Your task to perform on an android device: turn off priority inbox in the gmail app Image 0: 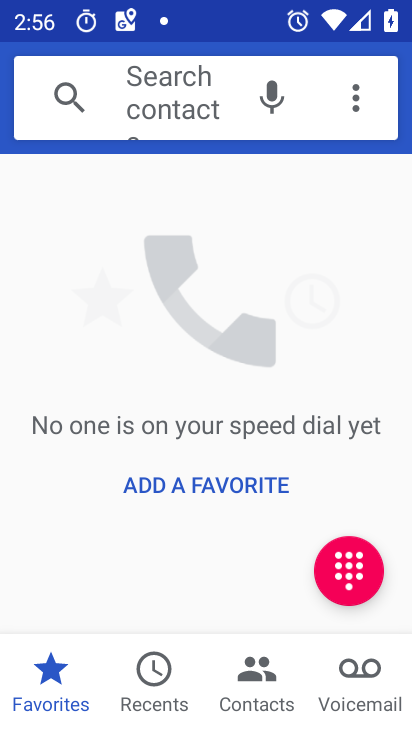
Step 0: press home button
Your task to perform on an android device: turn off priority inbox in the gmail app Image 1: 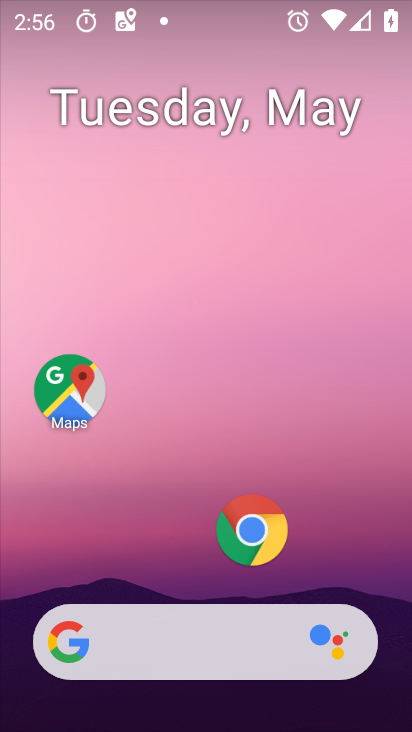
Step 1: drag from (224, 604) to (134, 3)
Your task to perform on an android device: turn off priority inbox in the gmail app Image 2: 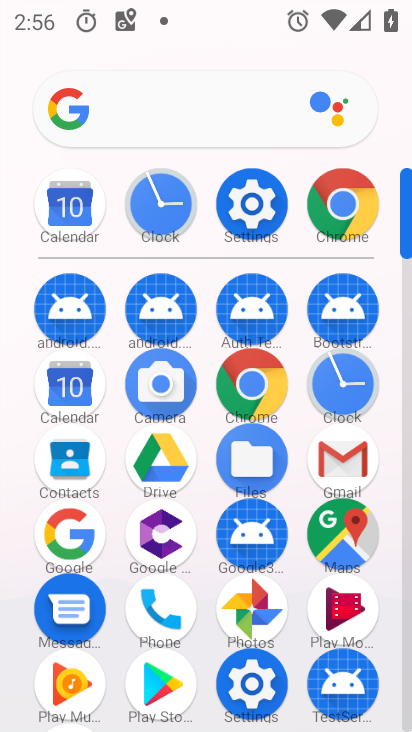
Step 2: click (356, 464)
Your task to perform on an android device: turn off priority inbox in the gmail app Image 3: 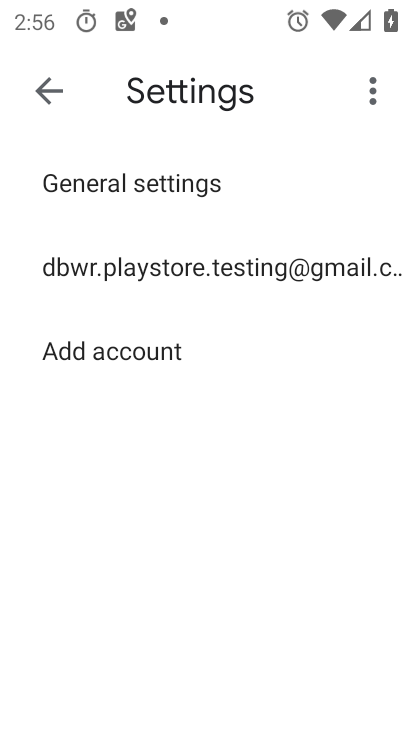
Step 3: click (152, 289)
Your task to perform on an android device: turn off priority inbox in the gmail app Image 4: 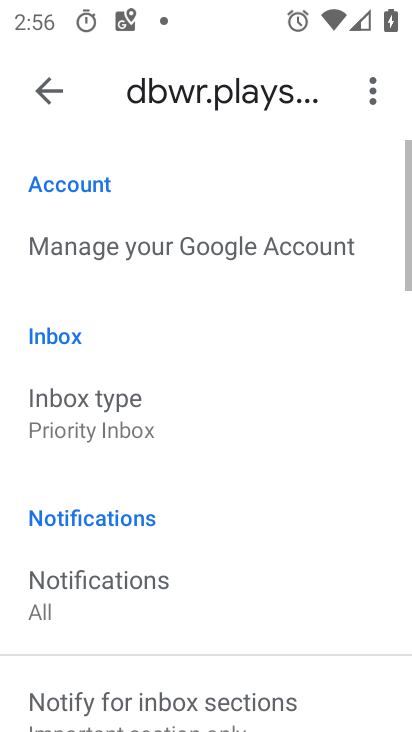
Step 4: click (124, 412)
Your task to perform on an android device: turn off priority inbox in the gmail app Image 5: 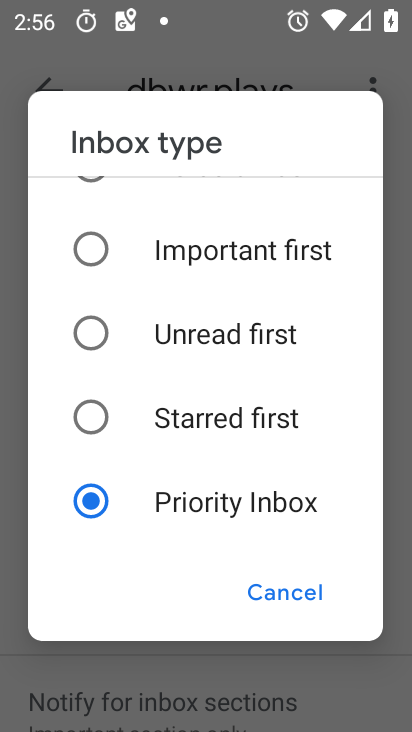
Step 5: click (62, 245)
Your task to perform on an android device: turn off priority inbox in the gmail app Image 6: 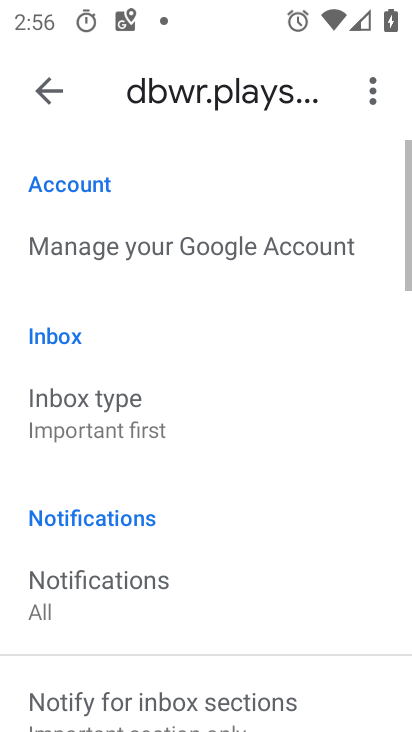
Step 6: task complete